Your task to perform on an android device: allow cookies in the chrome app Image 0: 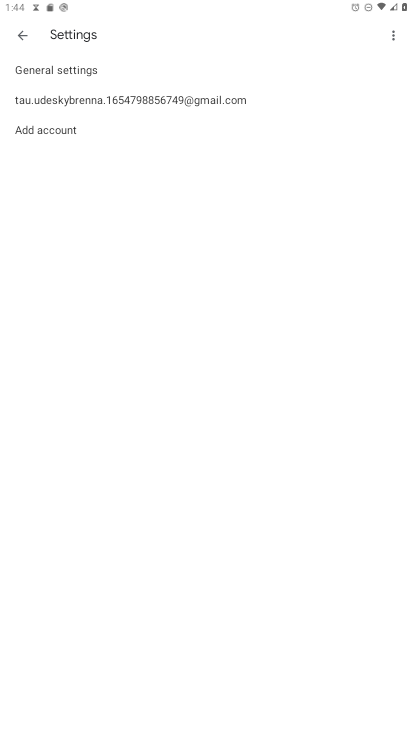
Step 0: press home button
Your task to perform on an android device: allow cookies in the chrome app Image 1: 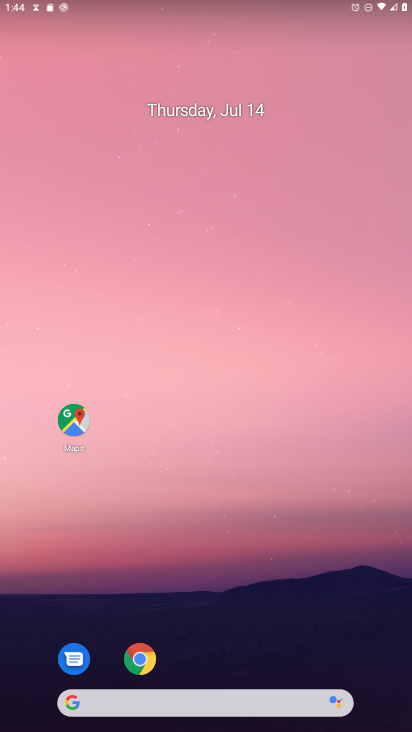
Step 1: click (145, 641)
Your task to perform on an android device: allow cookies in the chrome app Image 2: 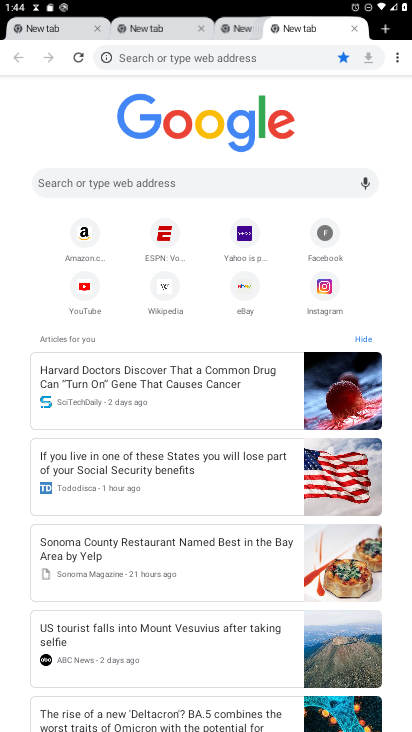
Step 2: click (401, 53)
Your task to perform on an android device: allow cookies in the chrome app Image 3: 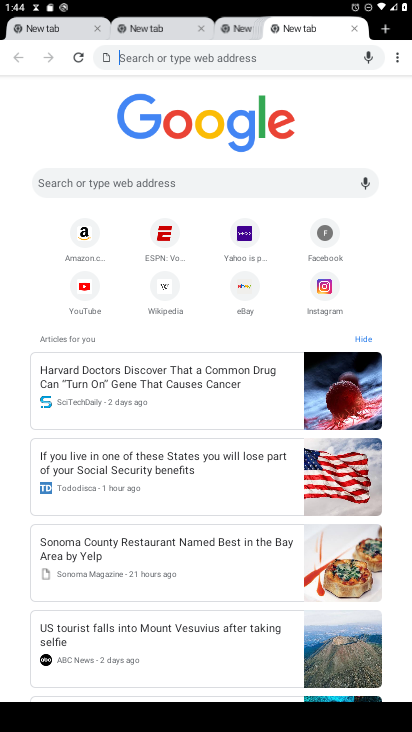
Step 3: click (393, 53)
Your task to perform on an android device: allow cookies in the chrome app Image 4: 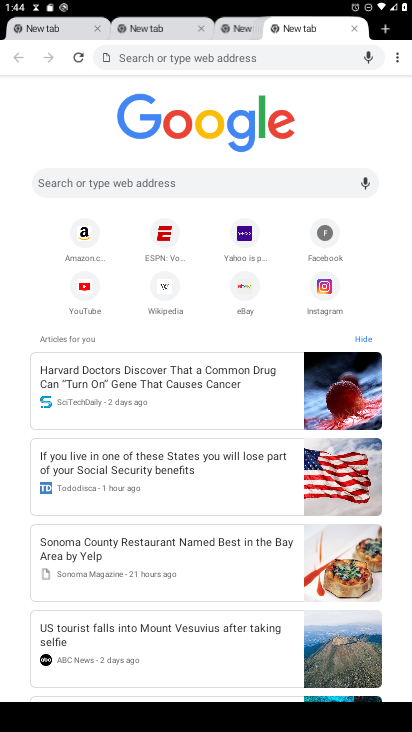
Step 4: task complete